Your task to perform on an android device: Show me popular games on the Play Store Image 0: 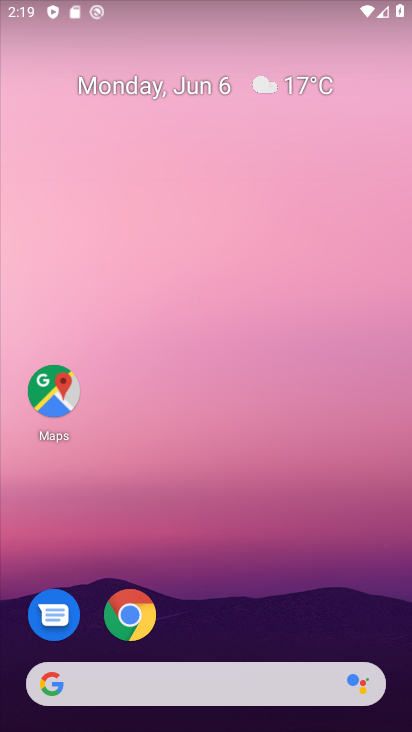
Step 0: drag from (187, 598) to (269, 14)
Your task to perform on an android device: Show me popular games on the Play Store Image 1: 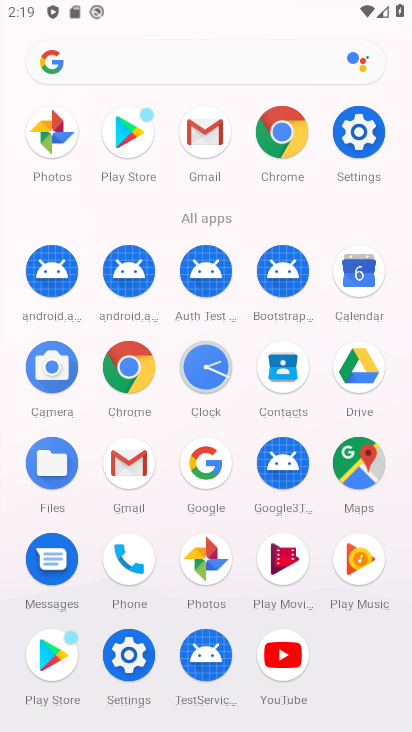
Step 1: click (55, 654)
Your task to perform on an android device: Show me popular games on the Play Store Image 2: 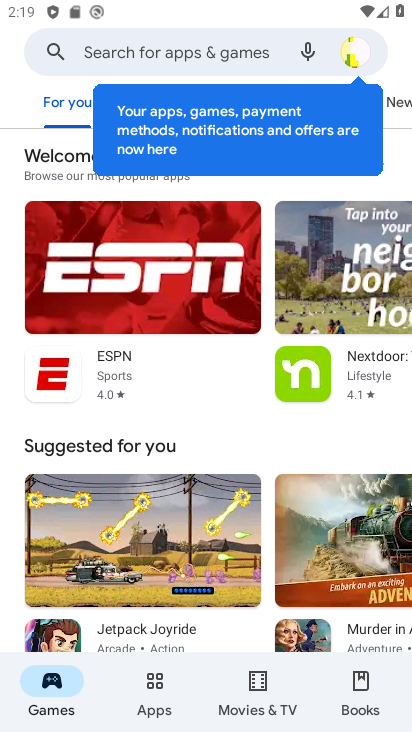
Step 2: drag from (61, 108) to (9, 100)
Your task to perform on an android device: Show me popular games on the Play Store Image 3: 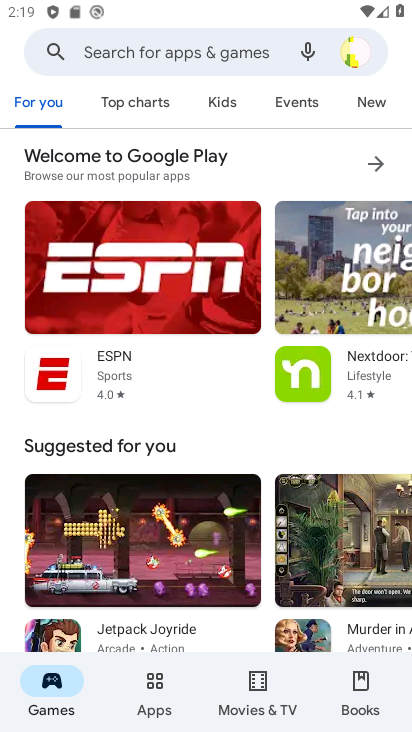
Step 3: click (141, 106)
Your task to perform on an android device: Show me popular games on the Play Store Image 4: 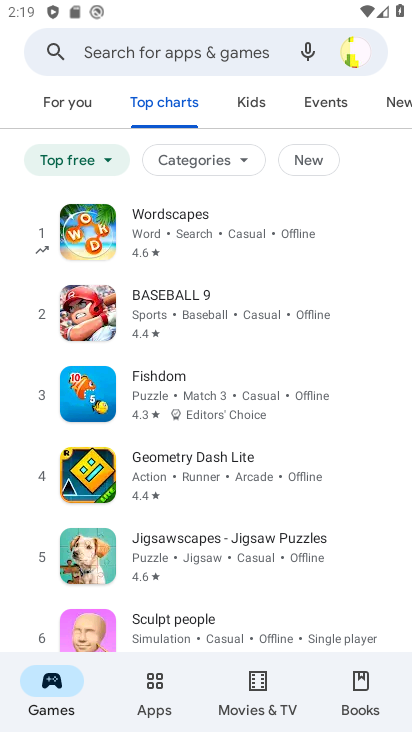
Step 4: task complete